Your task to perform on an android device: Open the phone app and click the voicemail tab. Image 0: 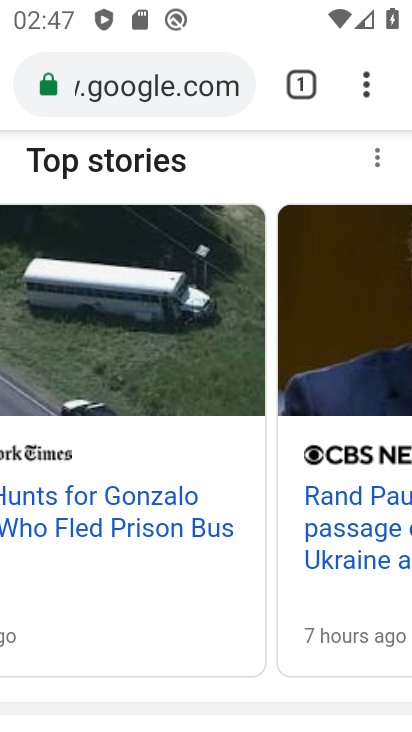
Step 0: press back button
Your task to perform on an android device: Open the phone app and click the voicemail tab. Image 1: 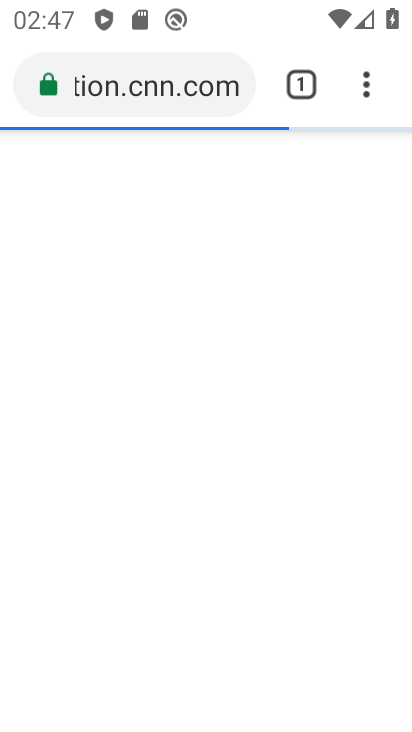
Step 1: press home button
Your task to perform on an android device: Open the phone app and click the voicemail tab. Image 2: 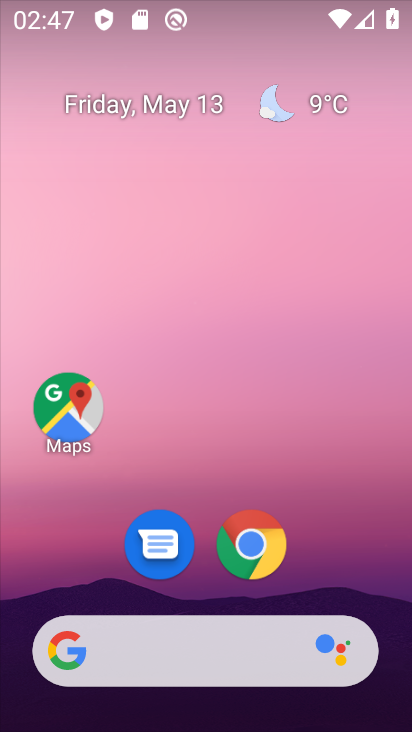
Step 2: drag from (343, 542) to (262, 19)
Your task to perform on an android device: Open the phone app and click the voicemail tab. Image 3: 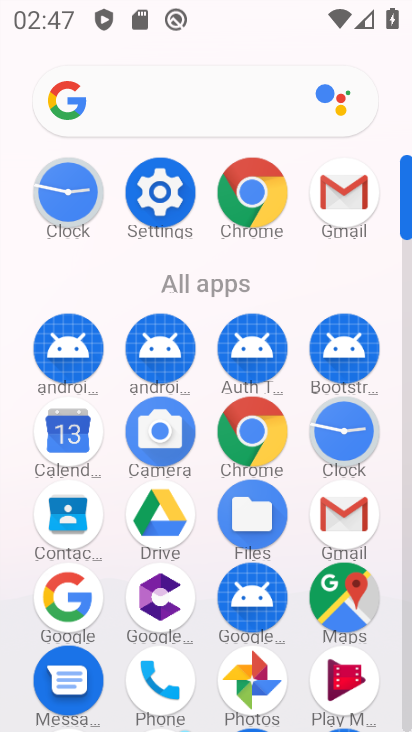
Step 3: drag from (16, 547) to (19, 257)
Your task to perform on an android device: Open the phone app and click the voicemail tab. Image 4: 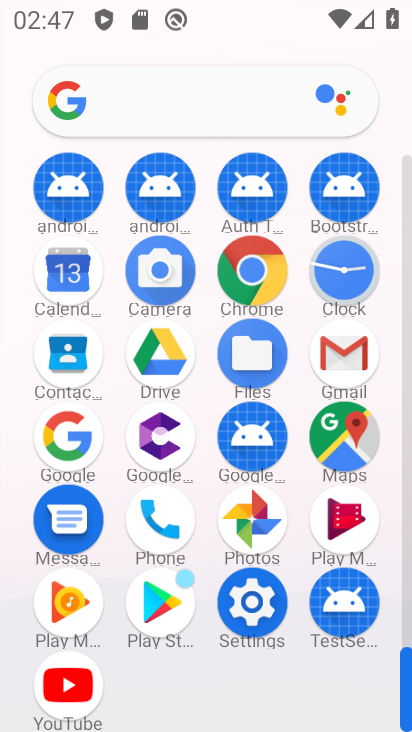
Step 4: click (159, 518)
Your task to perform on an android device: Open the phone app and click the voicemail tab. Image 5: 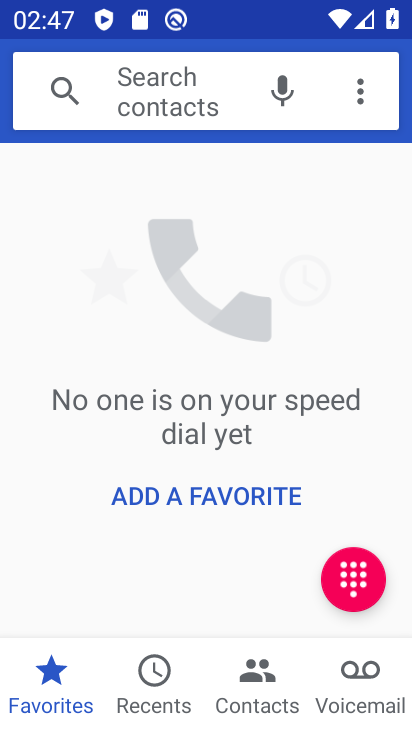
Step 5: click (367, 679)
Your task to perform on an android device: Open the phone app and click the voicemail tab. Image 6: 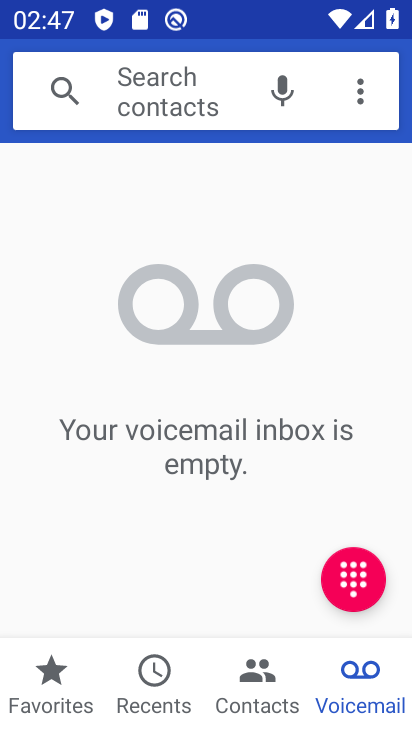
Step 6: task complete